Your task to perform on an android device: Go to Yahoo.com Image 0: 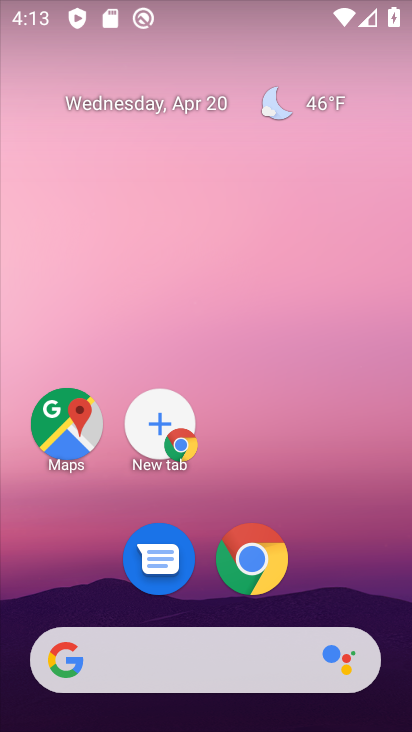
Step 0: click (242, 559)
Your task to perform on an android device: Go to Yahoo.com Image 1: 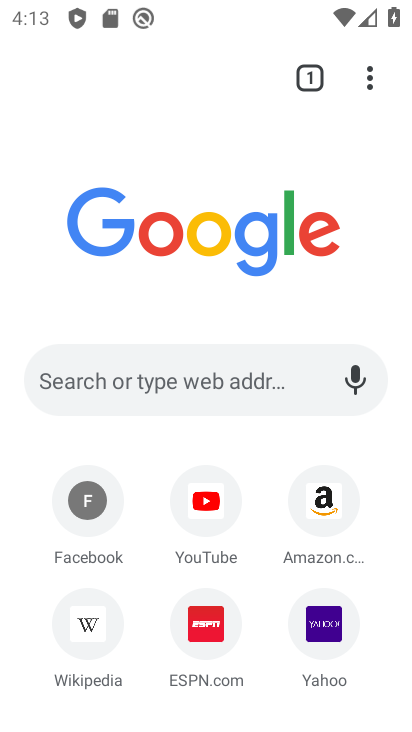
Step 1: click (310, 642)
Your task to perform on an android device: Go to Yahoo.com Image 2: 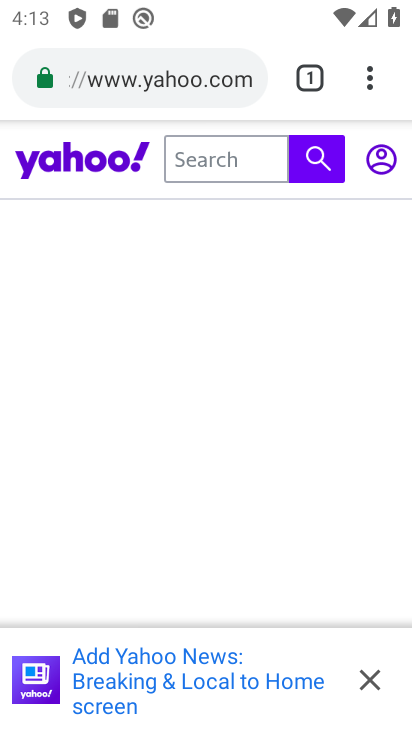
Step 2: task complete